Your task to perform on an android device: Go to privacy settings Image 0: 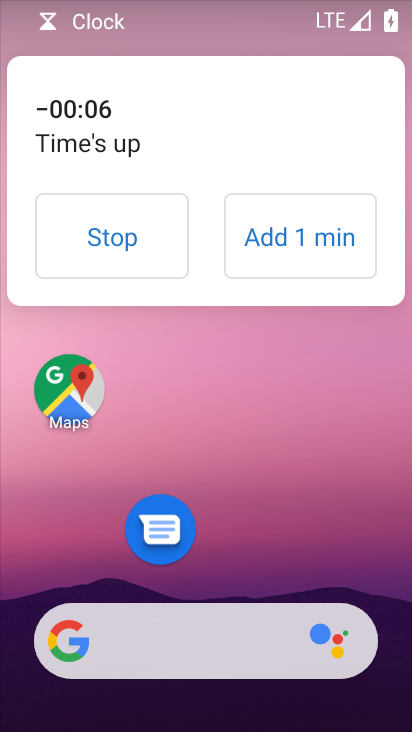
Step 0: click (178, 254)
Your task to perform on an android device: Go to privacy settings Image 1: 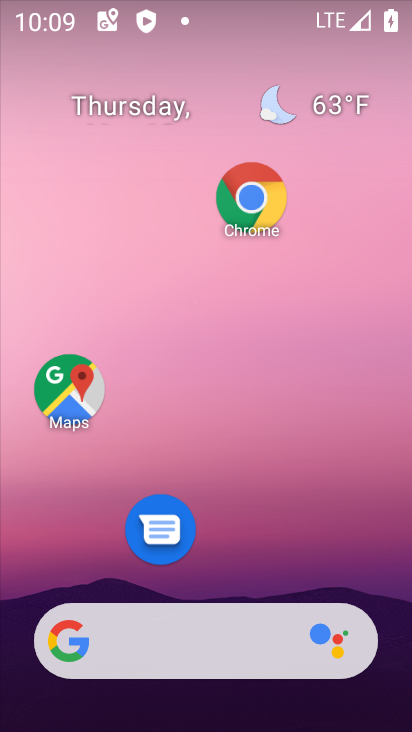
Step 1: drag from (241, 628) to (258, 135)
Your task to perform on an android device: Go to privacy settings Image 2: 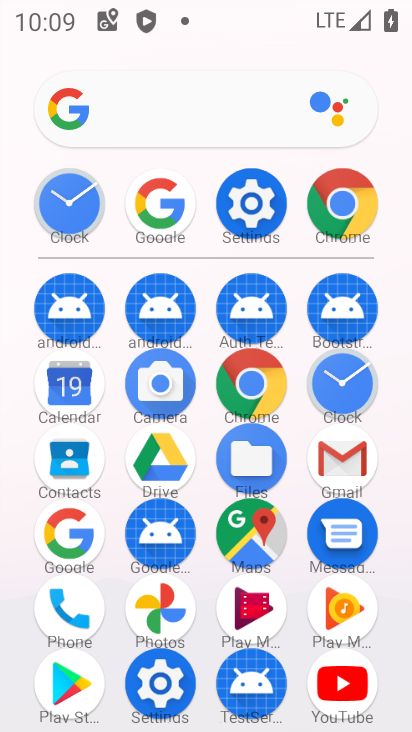
Step 2: click (263, 229)
Your task to perform on an android device: Go to privacy settings Image 3: 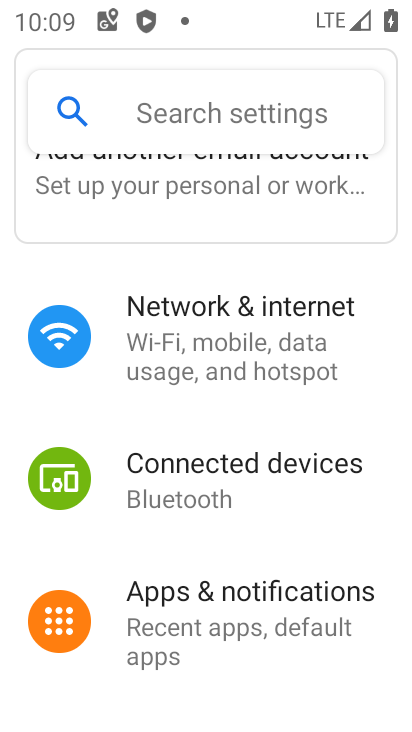
Step 3: drag from (254, 576) to (304, 173)
Your task to perform on an android device: Go to privacy settings Image 4: 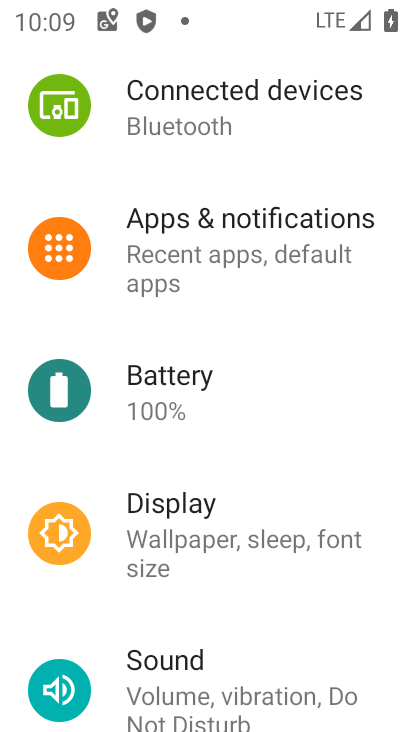
Step 4: drag from (213, 514) to (212, 137)
Your task to perform on an android device: Go to privacy settings Image 5: 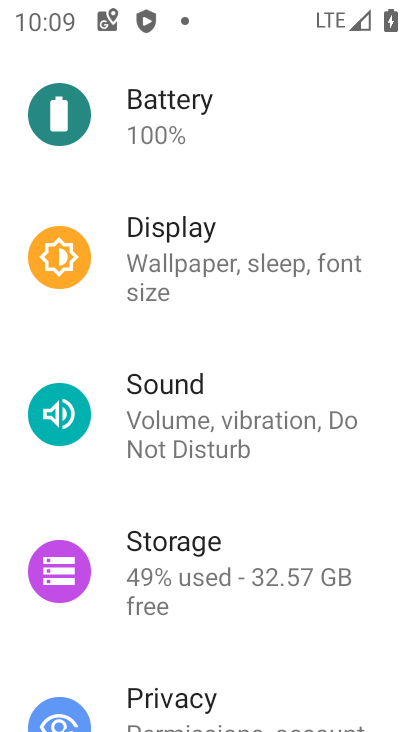
Step 5: drag from (208, 424) to (223, 126)
Your task to perform on an android device: Go to privacy settings Image 6: 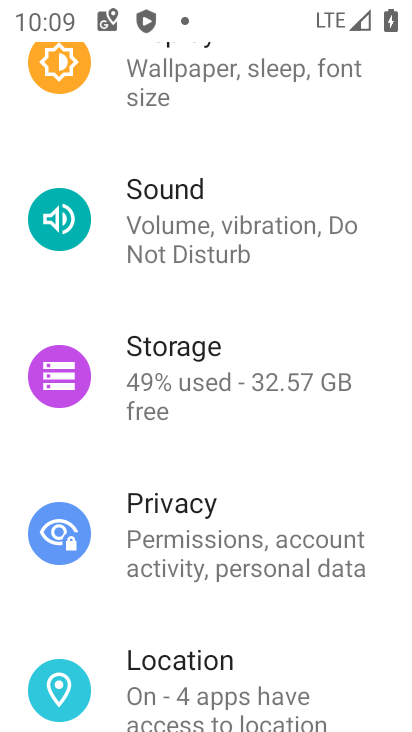
Step 6: click (218, 547)
Your task to perform on an android device: Go to privacy settings Image 7: 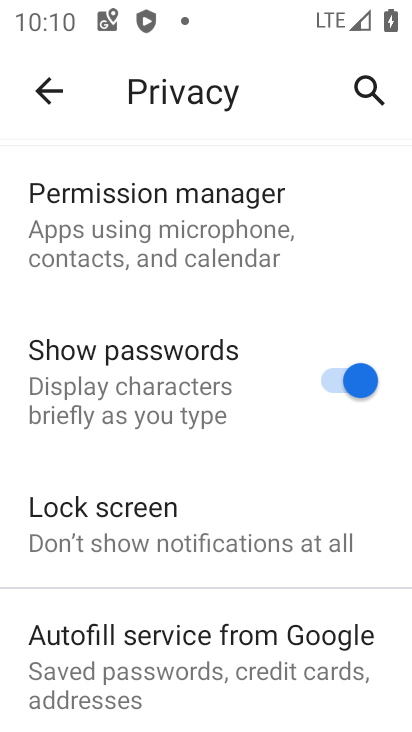
Step 7: task complete